Your task to perform on an android device: Open the phone app and click the voicemail tab. Image 0: 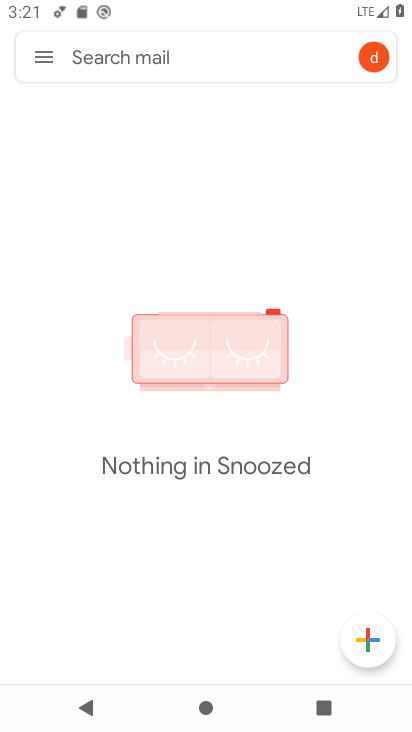
Step 0: press home button
Your task to perform on an android device: Open the phone app and click the voicemail tab. Image 1: 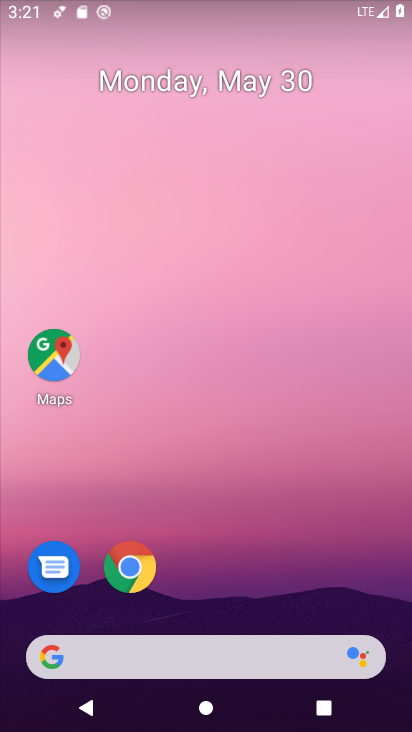
Step 1: drag from (281, 609) to (282, 0)
Your task to perform on an android device: Open the phone app and click the voicemail tab. Image 2: 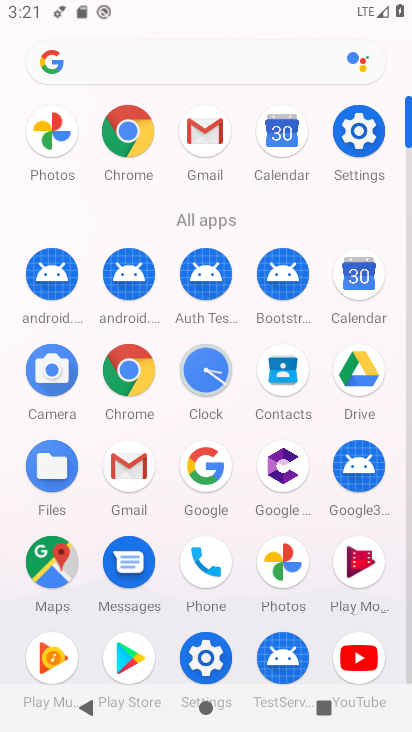
Step 2: click (202, 578)
Your task to perform on an android device: Open the phone app and click the voicemail tab. Image 3: 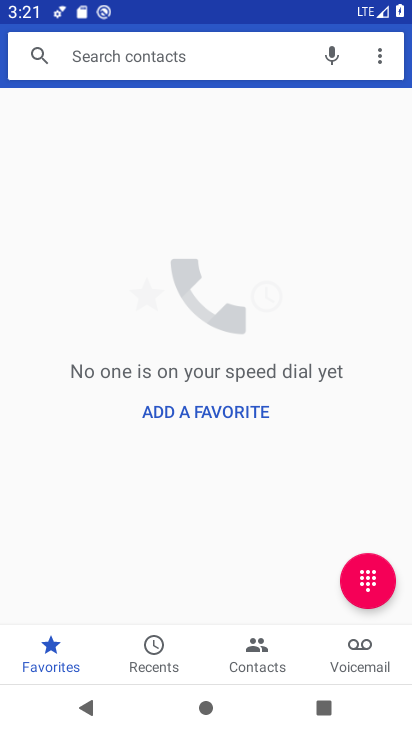
Step 3: click (353, 654)
Your task to perform on an android device: Open the phone app and click the voicemail tab. Image 4: 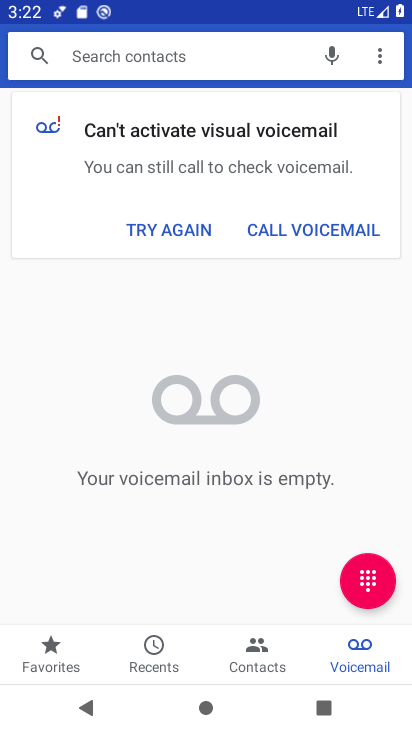
Step 4: task complete